Your task to perform on an android device: choose inbox layout in the gmail app Image 0: 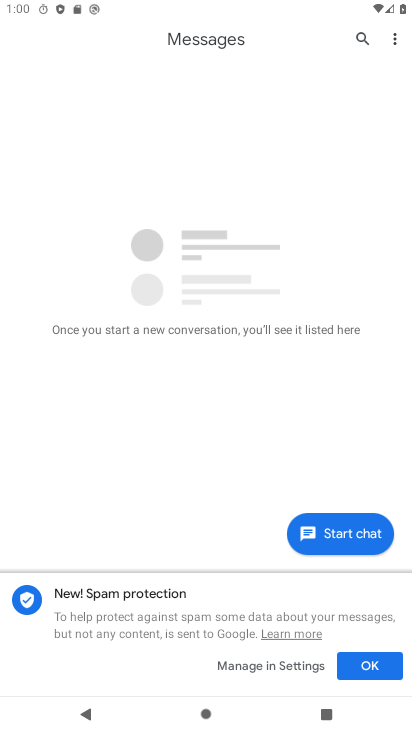
Step 0: press home button
Your task to perform on an android device: choose inbox layout in the gmail app Image 1: 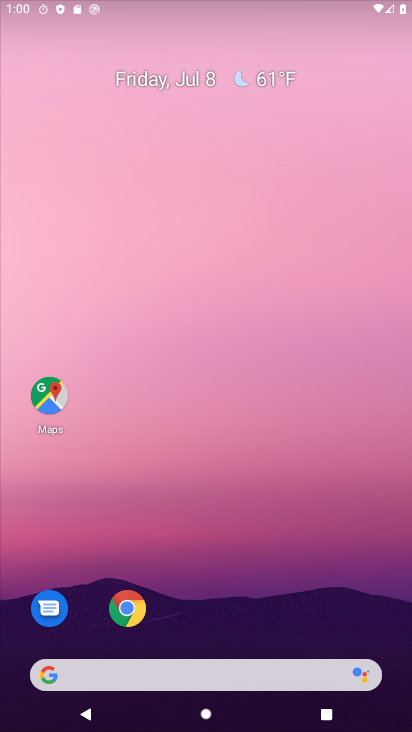
Step 1: drag from (190, 621) to (232, 185)
Your task to perform on an android device: choose inbox layout in the gmail app Image 2: 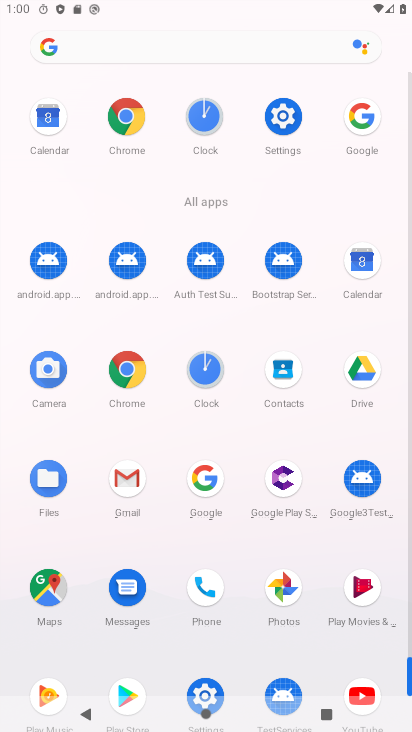
Step 2: click (120, 482)
Your task to perform on an android device: choose inbox layout in the gmail app Image 3: 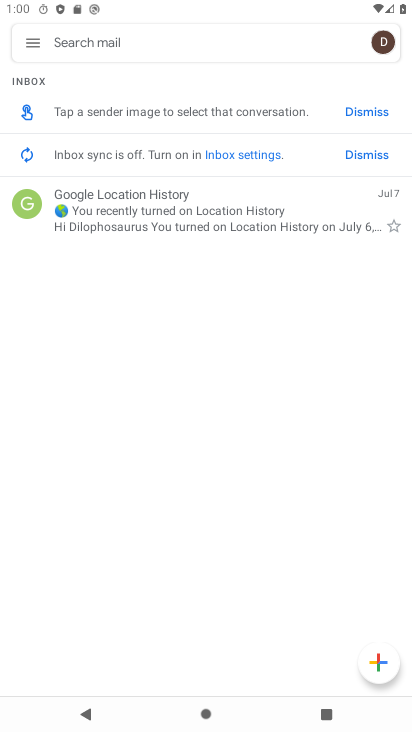
Step 3: click (387, 35)
Your task to perform on an android device: choose inbox layout in the gmail app Image 4: 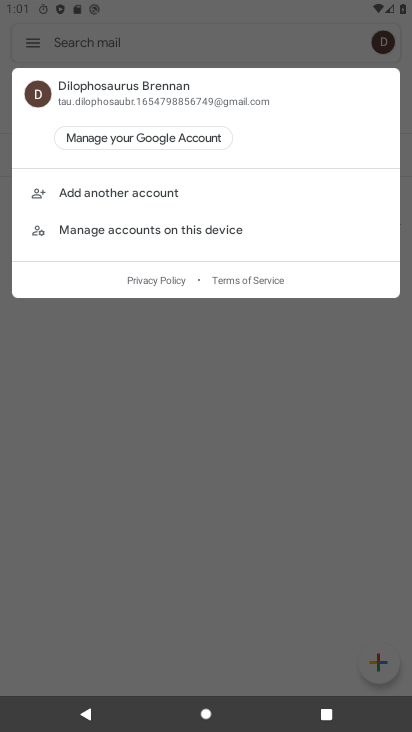
Step 4: click (238, 31)
Your task to perform on an android device: choose inbox layout in the gmail app Image 5: 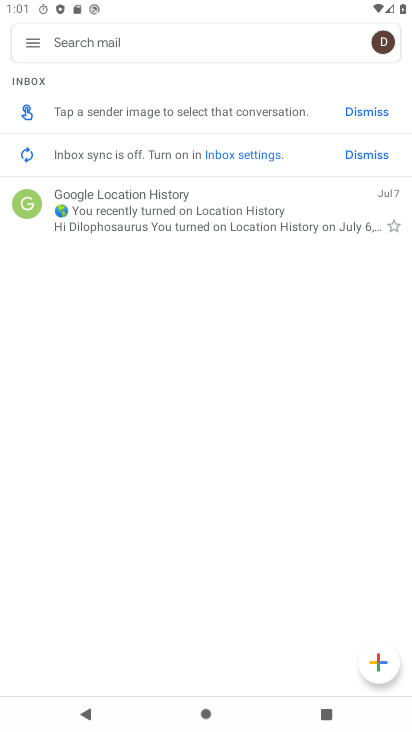
Step 5: click (29, 41)
Your task to perform on an android device: choose inbox layout in the gmail app Image 6: 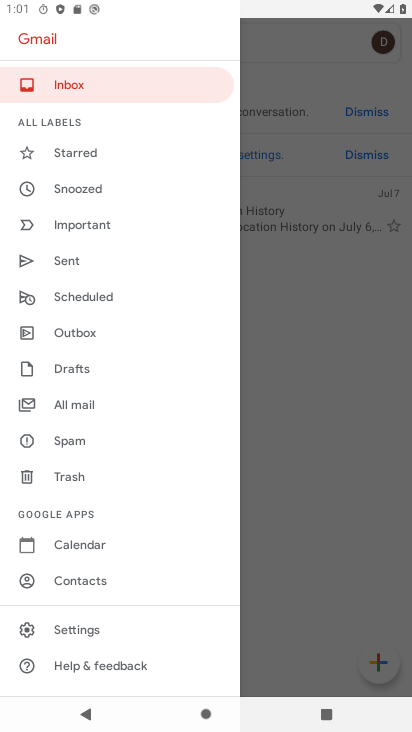
Step 6: click (76, 625)
Your task to perform on an android device: choose inbox layout in the gmail app Image 7: 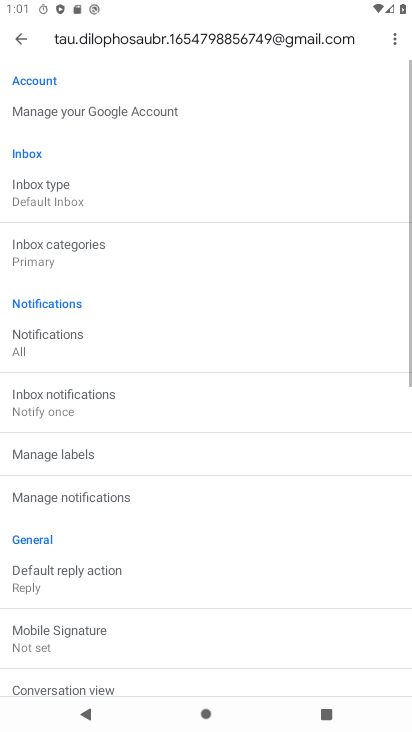
Step 7: click (30, 200)
Your task to perform on an android device: choose inbox layout in the gmail app Image 8: 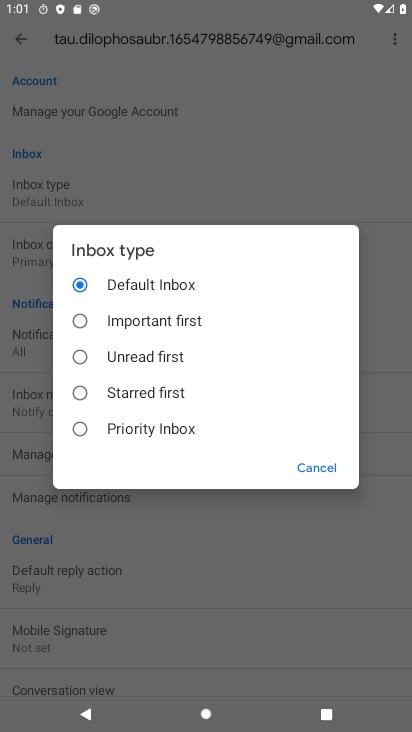
Step 8: click (76, 434)
Your task to perform on an android device: choose inbox layout in the gmail app Image 9: 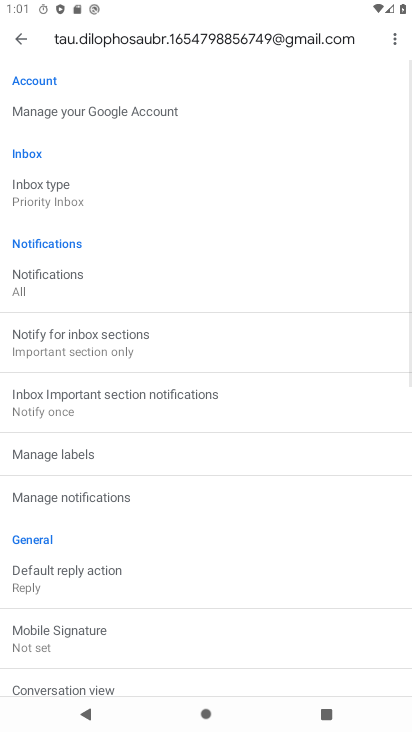
Step 9: task complete